Your task to perform on an android device: Open privacy settings Image 0: 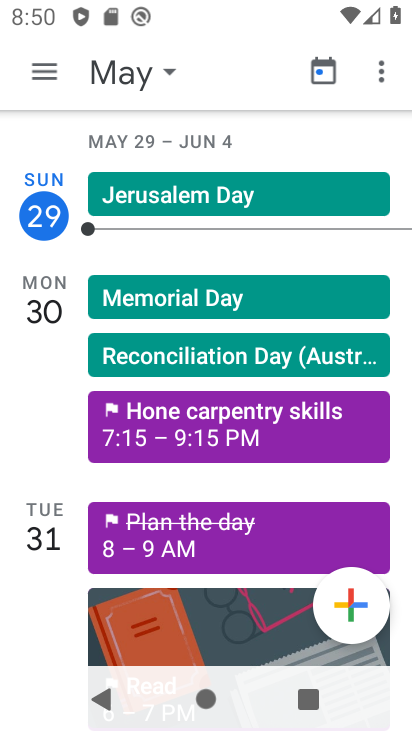
Step 0: press home button
Your task to perform on an android device: Open privacy settings Image 1: 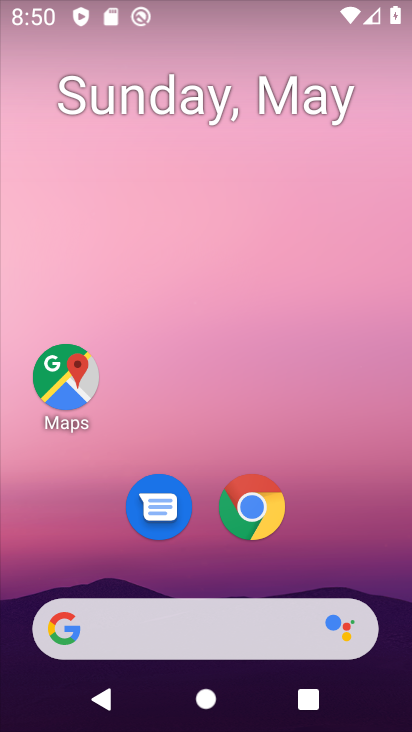
Step 1: drag from (201, 563) to (292, 0)
Your task to perform on an android device: Open privacy settings Image 2: 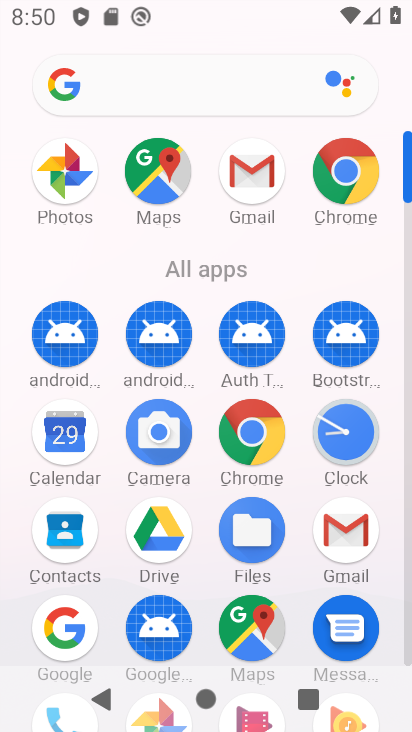
Step 2: drag from (220, 537) to (248, 0)
Your task to perform on an android device: Open privacy settings Image 3: 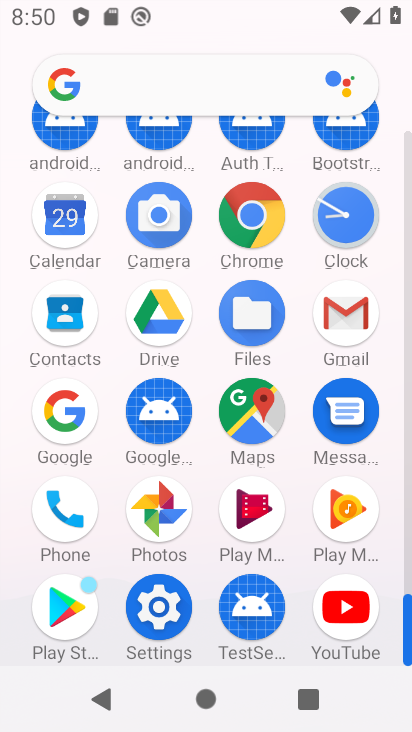
Step 3: click (150, 599)
Your task to perform on an android device: Open privacy settings Image 4: 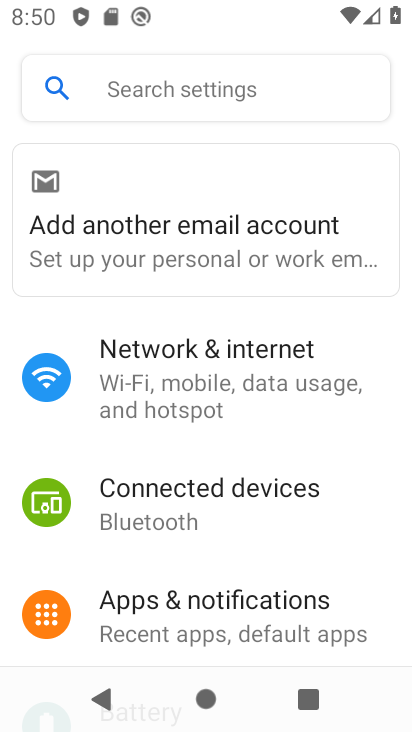
Step 4: drag from (201, 619) to (212, 352)
Your task to perform on an android device: Open privacy settings Image 5: 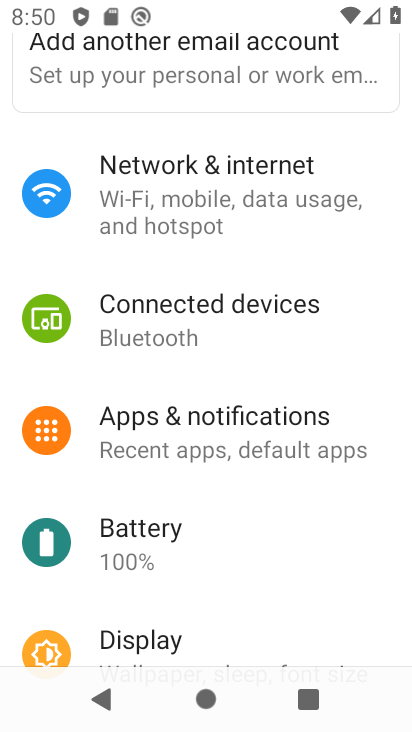
Step 5: drag from (200, 597) to (238, 255)
Your task to perform on an android device: Open privacy settings Image 6: 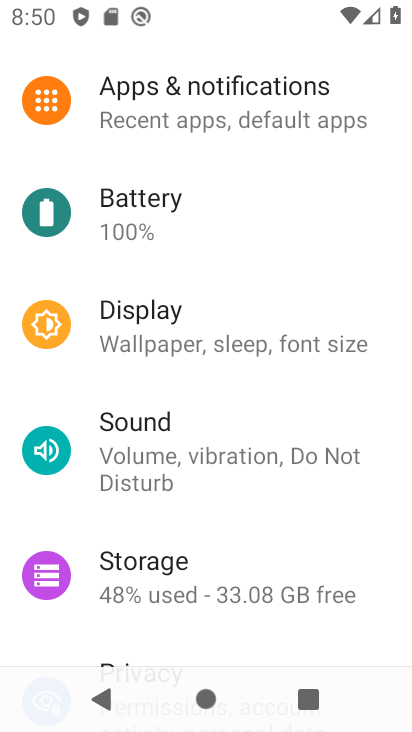
Step 6: drag from (169, 517) to (204, 192)
Your task to perform on an android device: Open privacy settings Image 7: 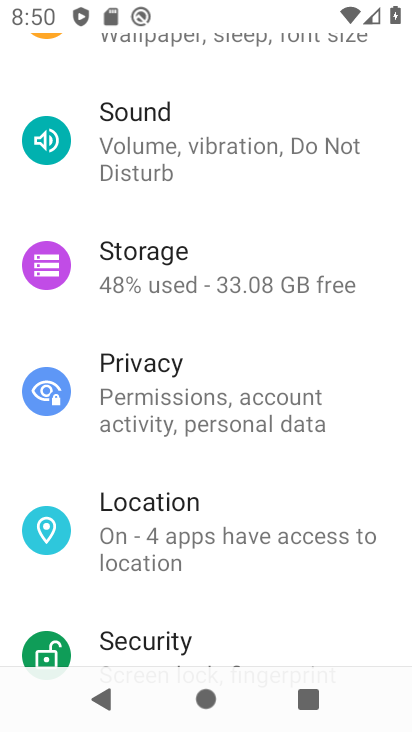
Step 7: click (176, 375)
Your task to perform on an android device: Open privacy settings Image 8: 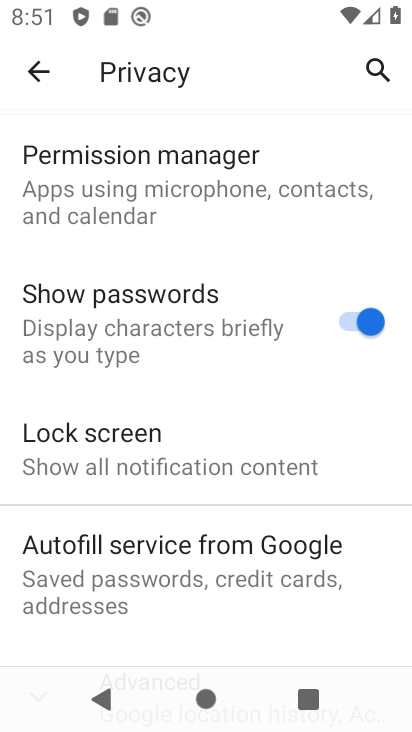
Step 8: task complete